Your task to perform on an android device: Open calendar and show me the second week of next month Image 0: 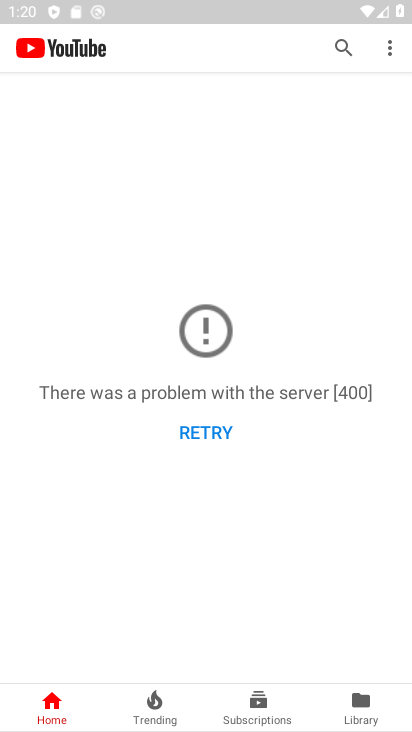
Step 0: press home button
Your task to perform on an android device: Open calendar and show me the second week of next month Image 1: 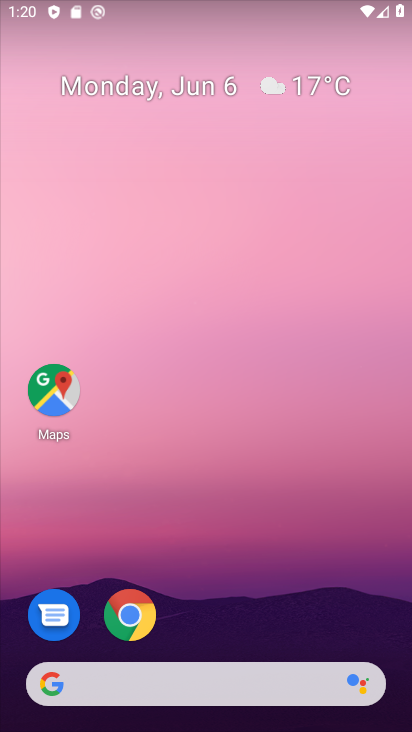
Step 1: drag from (203, 613) to (290, 157)
Your task to perform on an android device: Open calendar and show me the second week of next month Image 2: 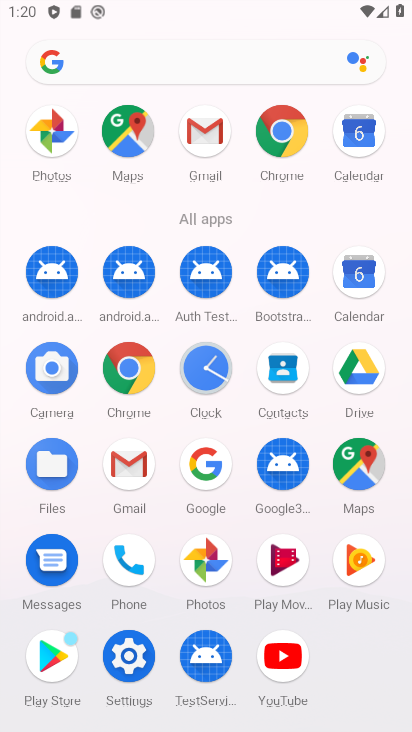
Step 2: click (366, 275)
Your task to perform on an android device: Open calendar and show me the second week of next month Image 3: 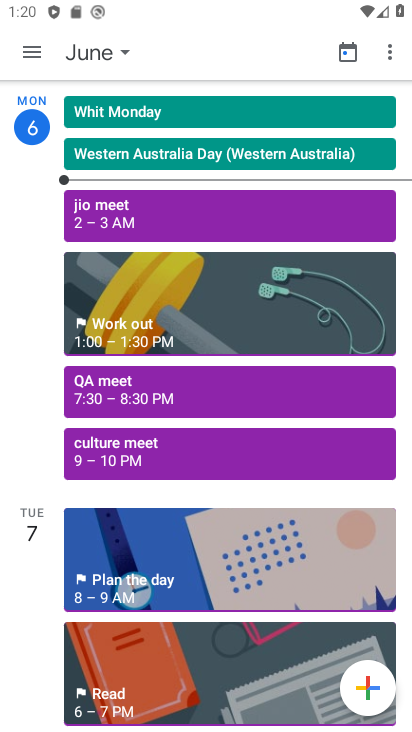
Step 3: click (39, 63)
Your task to perform on an android device: Open calendar and show me the second week of next month Image 4: 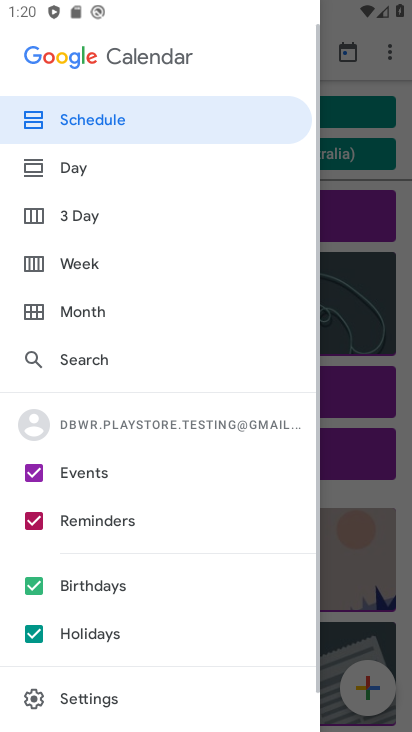
Step 4: click (68, 272)
Your task to perform on an android device: Open calendar and show me the second week of next month Image 5: 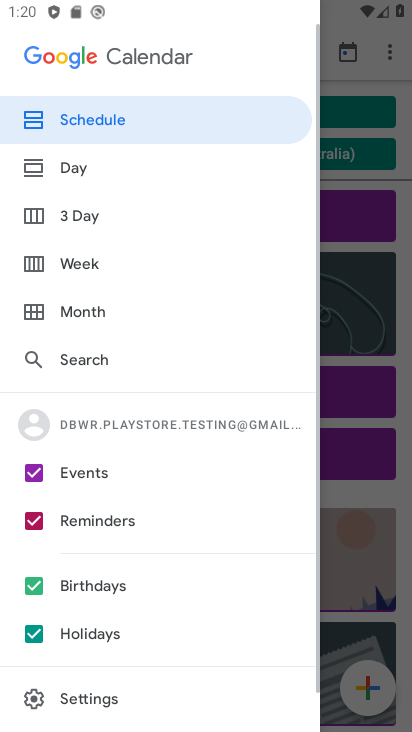
Step 5: click (82, 266)
Your task to perform on an android device: Open calendar and show me the second week of next month Image 6: 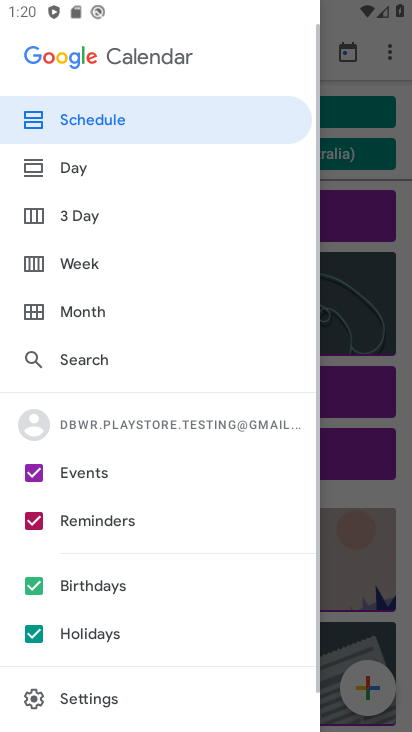
Step 6: click (113, 259)
Your task to perform on an android device: Open calendar and show me the second week of next month Image 7: 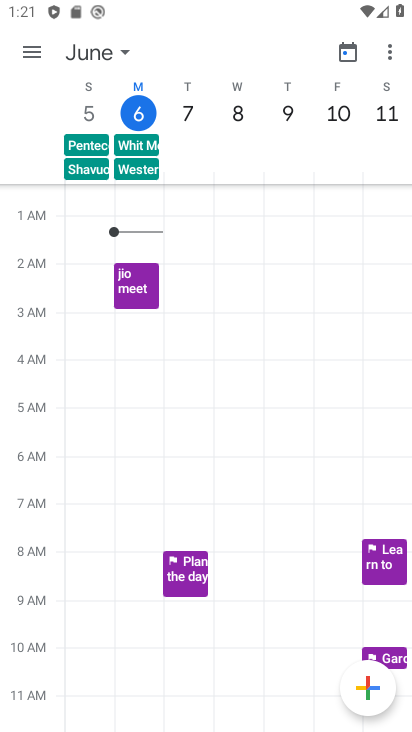
Step 7: click (106, 58)
Your task to perform on an android device: Open calendar and show me the second week of next month Image 8: 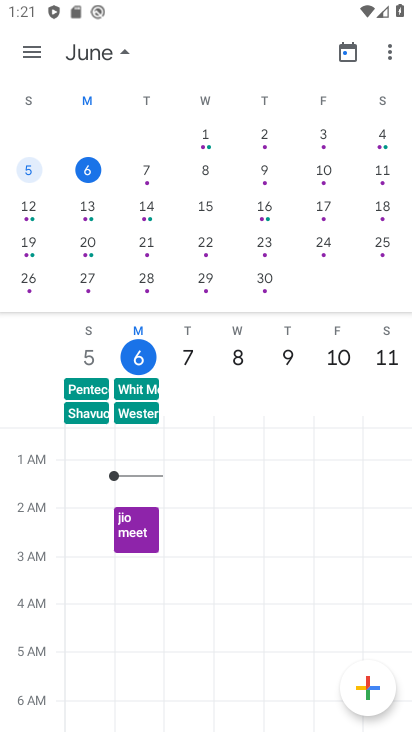
Step 8: drag from (358, 278) to (18, 244)
Your task to perform on an android device: Open calendar and show me the second week of next month Image 9: 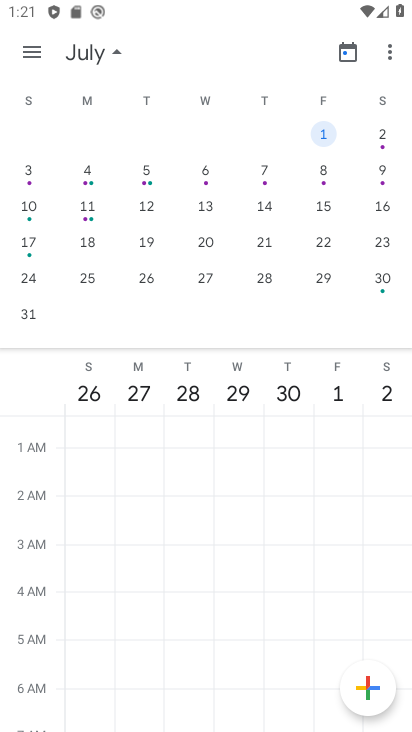
Step 9: click (31, 213)
Your task to perform on an android device: Open calendar and show me the second week of next month Image 10: 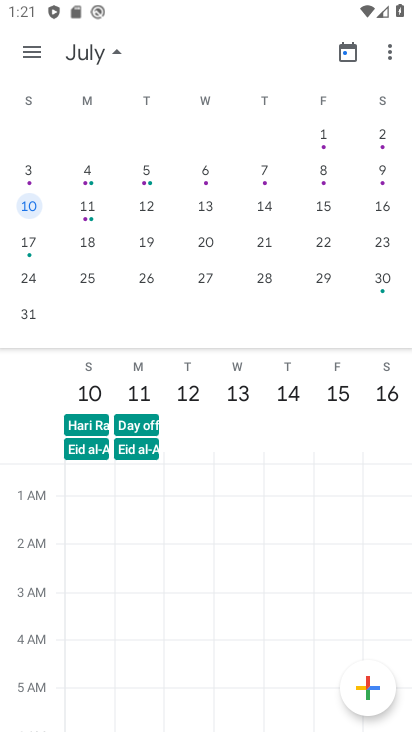
Step 10: click (30, 212)
Your task to perform on an android device: Open calendar and show me the second week of next month Image 11: 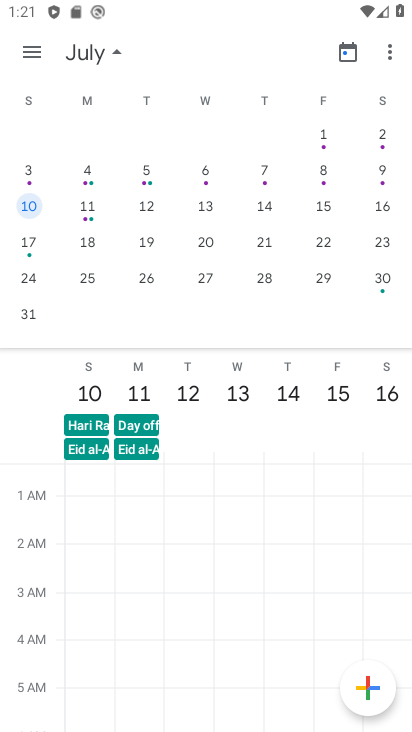
Step 11: click (28, 211)
Your task to perform on an android device: Open calendar and show me the second week of next month Image 12: 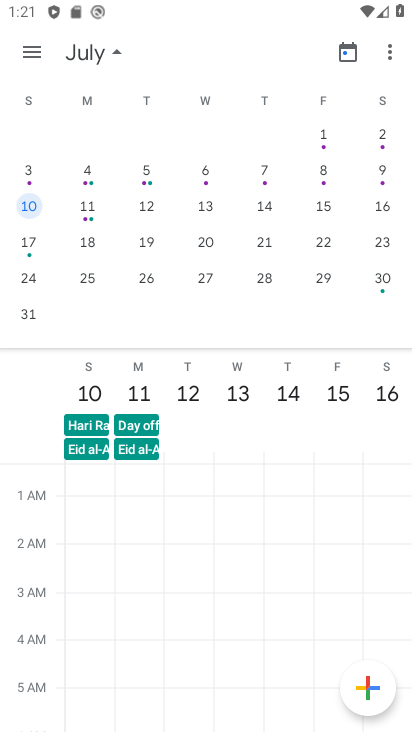
Step 12: click (101, 57)
Your task to perform on an android device: Open calendar and show me the second week of next month Image 13: 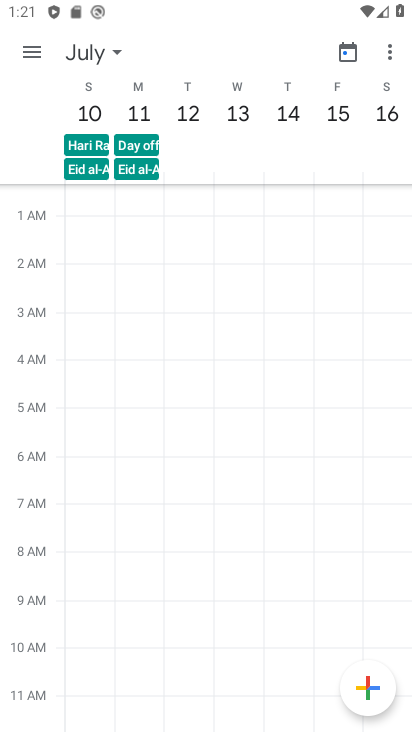
Step 13: task complete